Your task to perform on an android device: show emergency info Image 0: 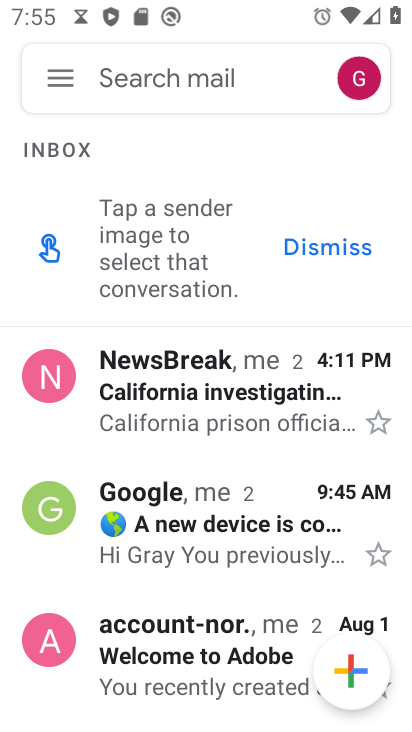
Step 0: press home button
Your task to perform on an android device: show emergency info Image 1: 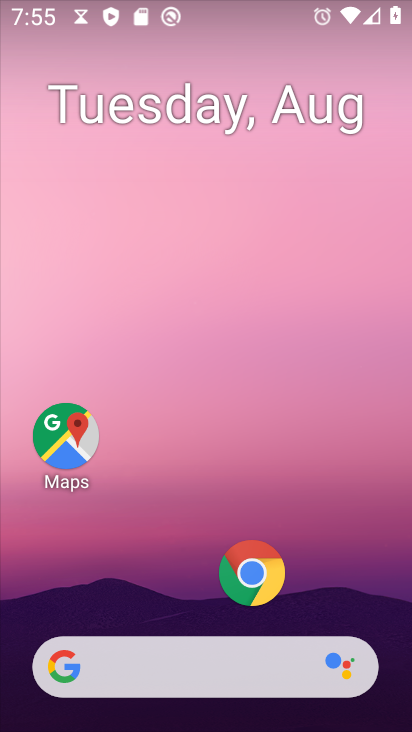
Step 1: drag from (194, 588) to (219, 4)
Your task to perform on an android device: show emergency info Image 2: 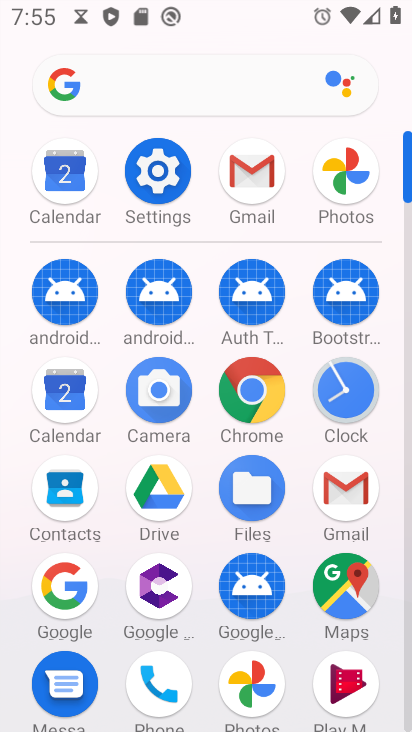
Step 2: click (157, 167)
Your task to perform on an android device: show emergency info Image 3: 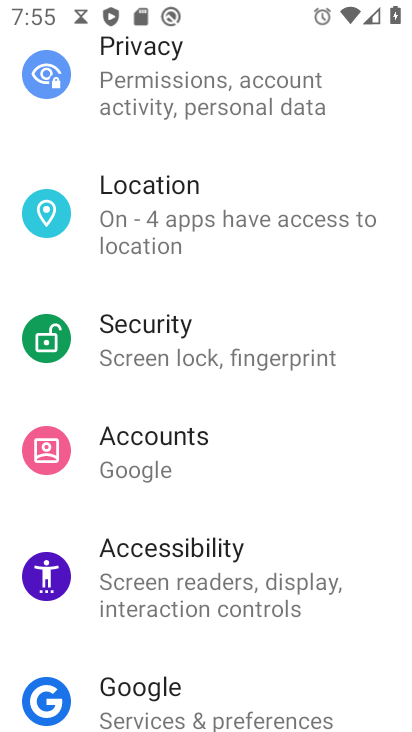
Step 3: drag from (198, 648) to (304, 19)
Your task to perform on an android device: show emergency info Image 4: 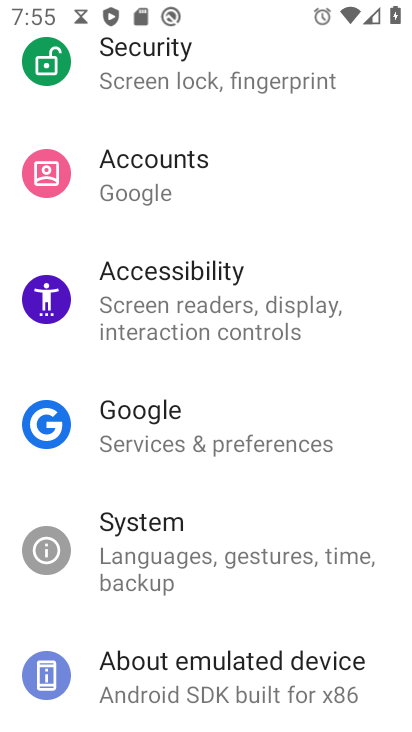
Step 4: click (263, 671)
Your task to perform on an android device: show emergency info Image 5: 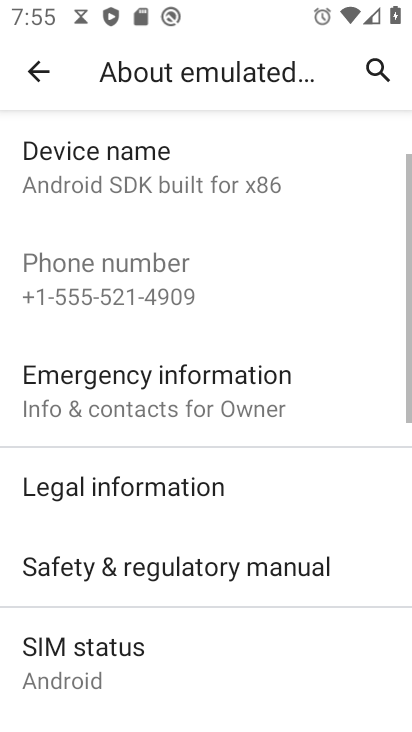
Step 5: click (237, 383)
Your task to perform on an android device: show emergency info Image 6: 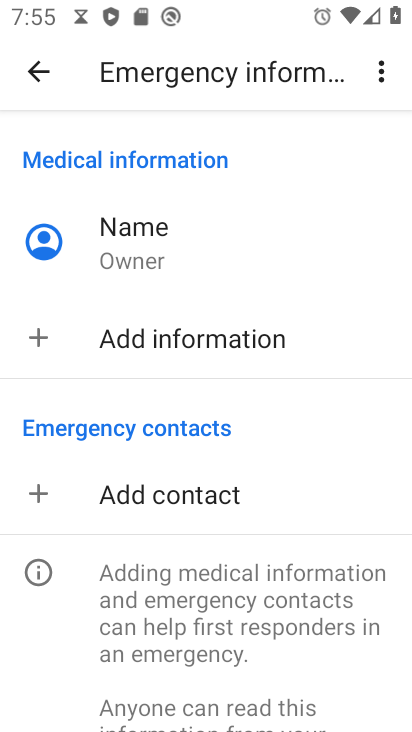
Step 6: task complete